Your task to perform on an android device: turn pop-ups off in chrome Image 0: 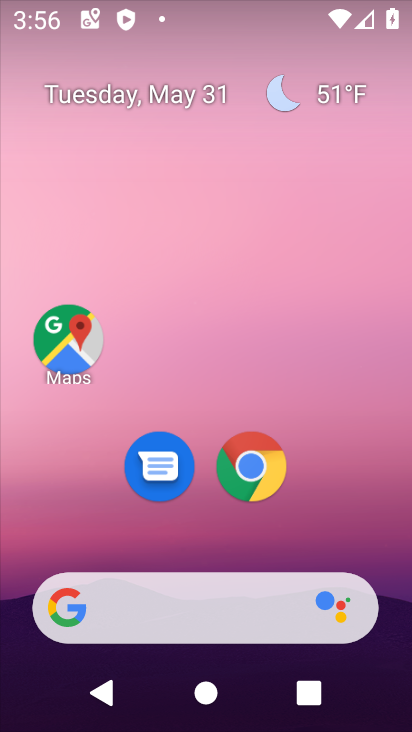
Step 0: click (247, 456)
Your task to perform on an android device: turn pop-ups off in chrome Image 1: 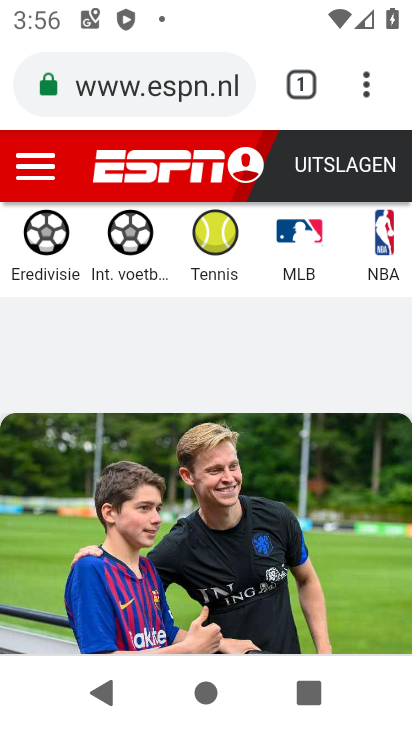
Step 1: click (369, 84)
Your task to perform on an android device: turn pop-ups off in chrome Image 2: 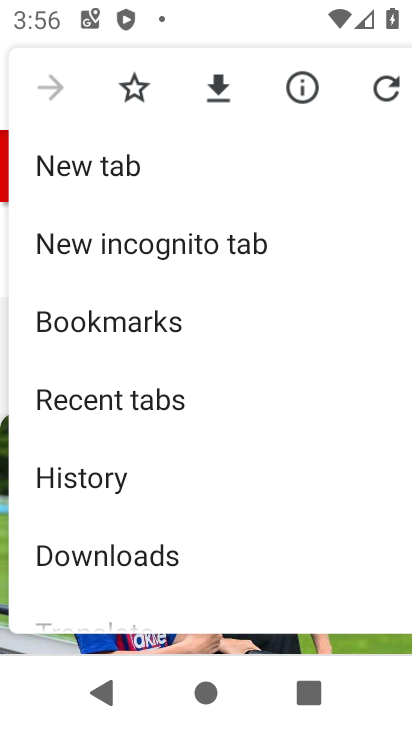
Step 2: drag from (223, 582) to (254, 53)
Your task to perform on an android device: turn pop-ups off in chrome Image 3: 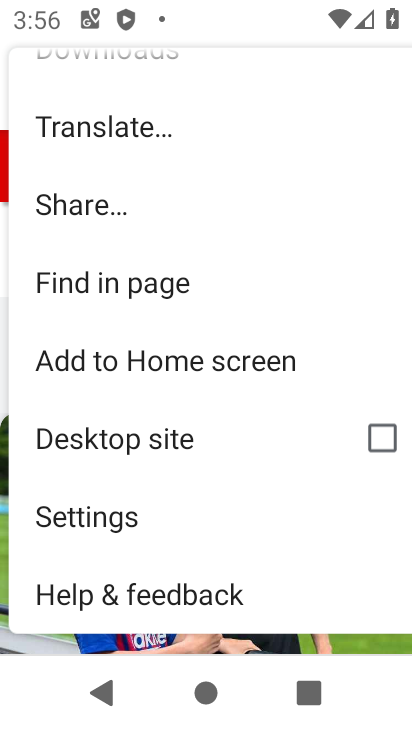
Step 3: click (156, 515)
Your task to perform on an android device: turn pop-ups off in chrome Image 4: 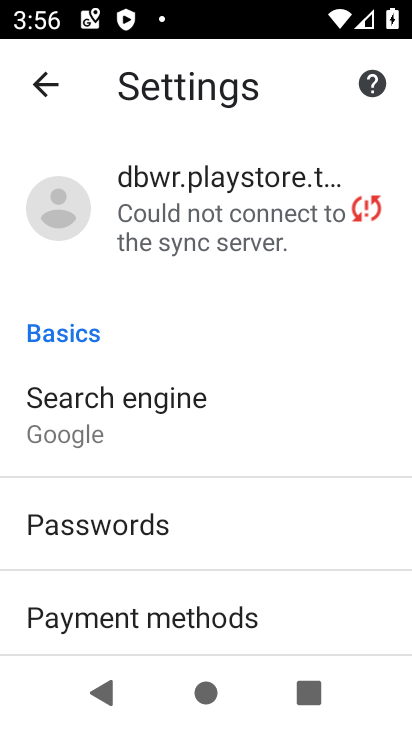
Step 4: drag from (282, 610) to (275, 132)
Your task to perform on an android device: turn pop-ups off in chrome Image 5: 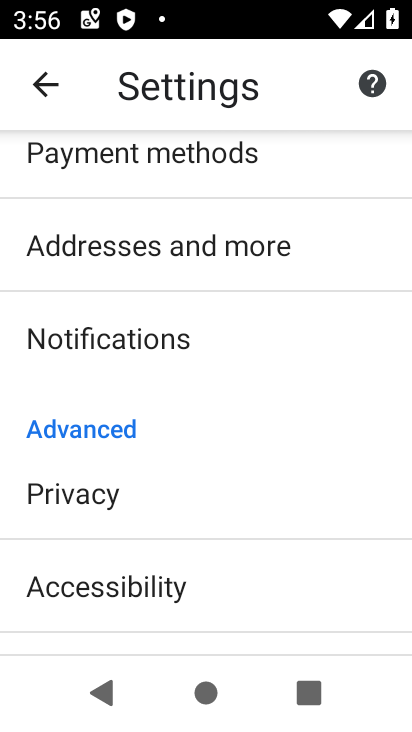
Step 5: drag from (230, 603) to (264, 124)
Your task to perform on an android device: turn pop-ups off in chrome Image 6: 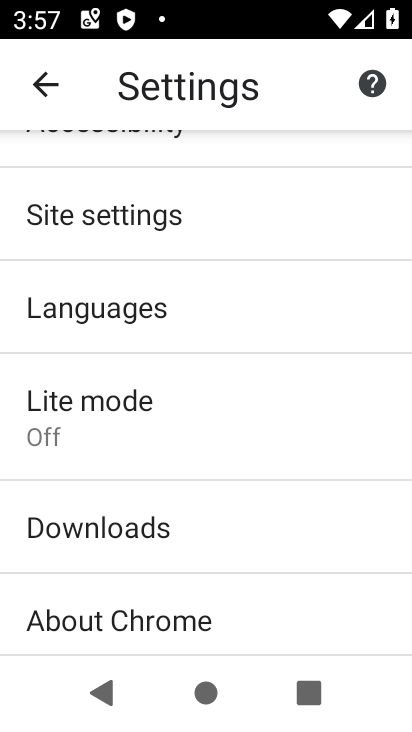
Step 6: click (206, 204)
Your task to perform on an android device: turn pop-ups off in chrome Image 7: 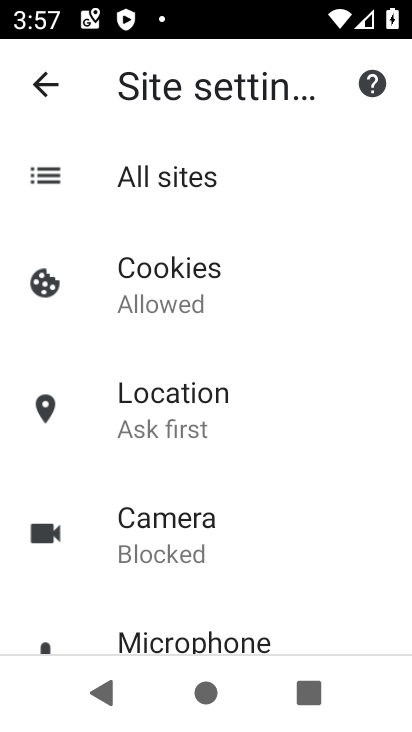
Step 7: drag from (138, 596) to (148, 145)
Your task to perform on an android device: turn pop-ups off in chrome Image 8: 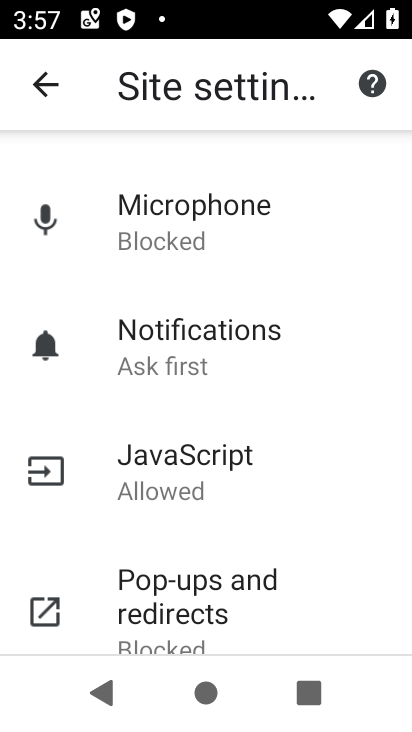
Step 8: click (89, 608)
Your task to perform on an android device: turn pop-ups off in chrome Image 9: 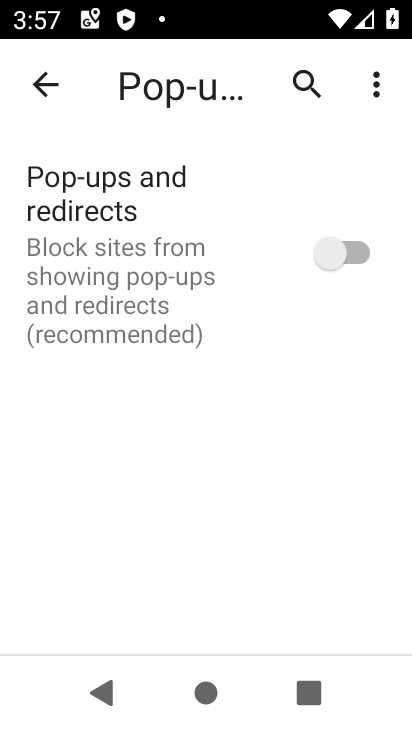
Step 9: task complete